Your task to perform on an android device: toggle wifi Image 0: 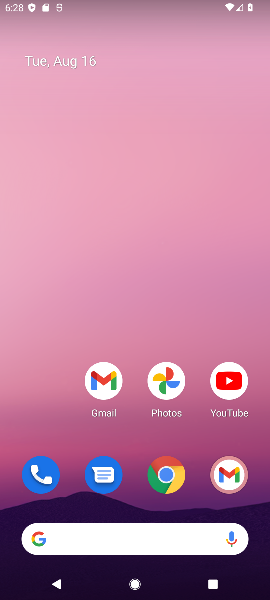
Step 0: drag from (115, 5) to (142, 498)
Your task to perform on an android device: toggle wifi Image 1: 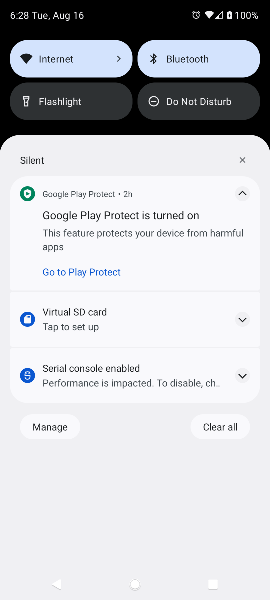
Step 1: drag from (116, 121) to (134, 582)
Your task to perform on an android device: toggle wifi Image 2: 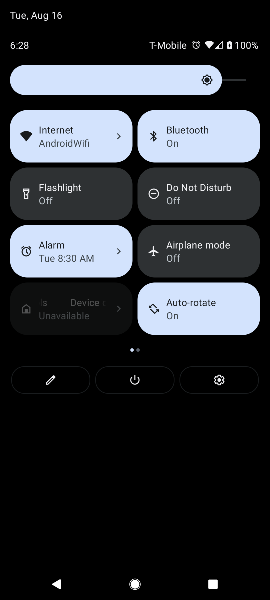
Step 2: click (49, 134)
Your task to perform on an android device: toggle wifi Image 3: 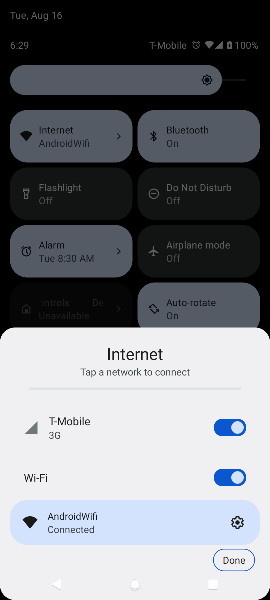
Step 3: click (212, 481)
Your task to perform on an android device: toggle wifi Image 4: 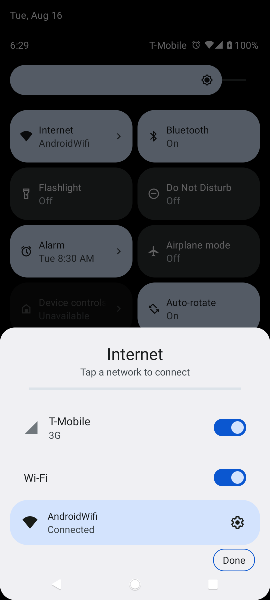
Step 4: click (231, 474)
Your task to perform on an android device: toggle wifi Image 5: 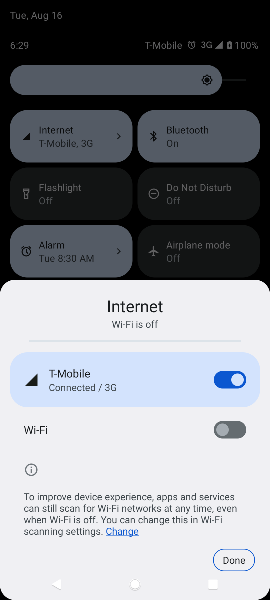
Step 5: task complete